Your task to perform on an android device: find which apps use the phone's location Image 0: 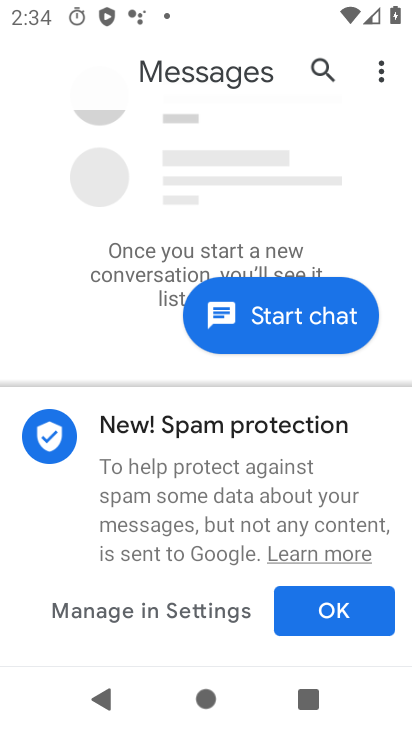
Step 0: press home button
Your task to perform on an android device: find which apps use the phone's location Image 1: 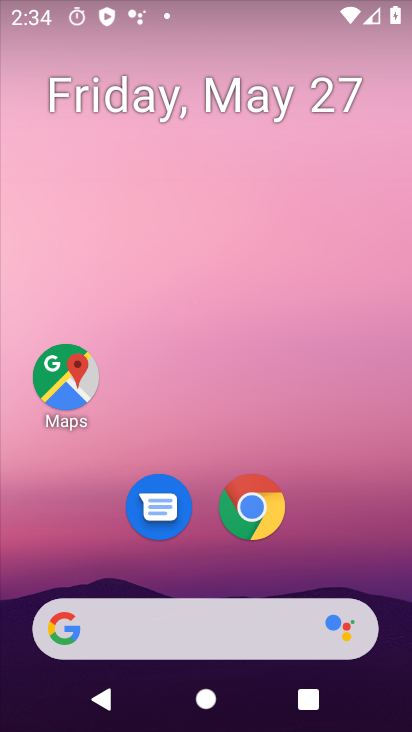
Step 1: drag from (192, 576) to (191, 276)
Your task to perform on an android device: find which apps use the phone's location Image 2: 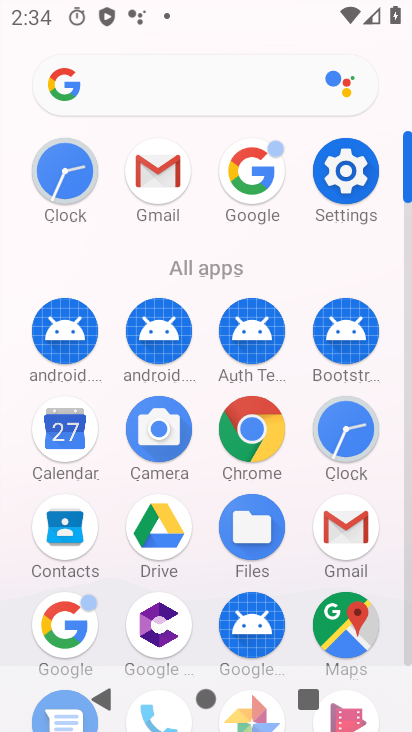
Step 2: click (359, 166)
Your task to perform on an android device: find which apps use the phone's location Image 3: 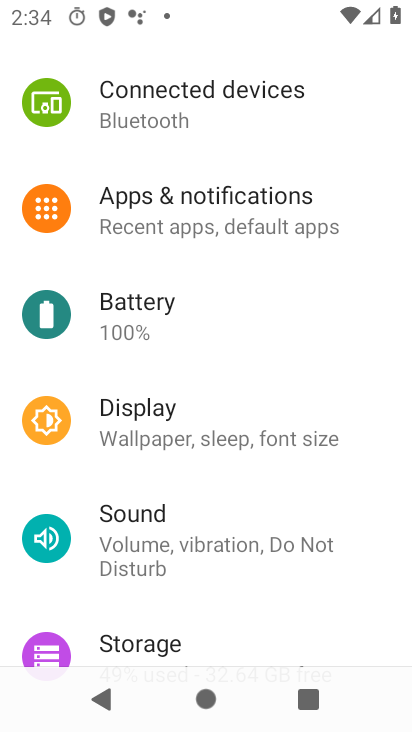
Step 3: drag from (220, 600) to (220, 179)
Your task to perform on an android device: find which apps use the phone's location Image 4: 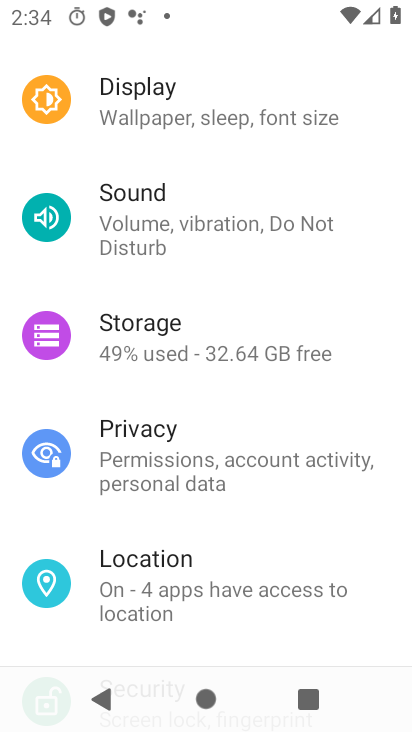
Step 4: click (170, 560)
Your task to perform on an android device: find which apps use the phone's location Image 5: 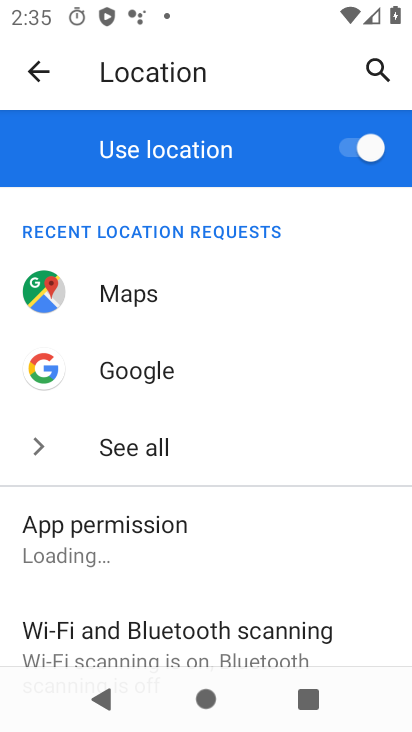
Step 5: drag from (106, 638) to (105, 276)
Your task to perform on an android device: find which apps use the phone's location Image 6: 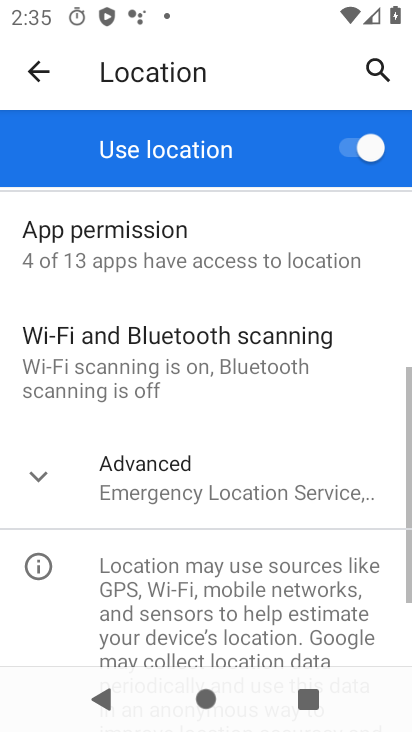
Step 6: click (107, 485)
Your task to perform on an android device: find which apps use the phone's location Image 7: 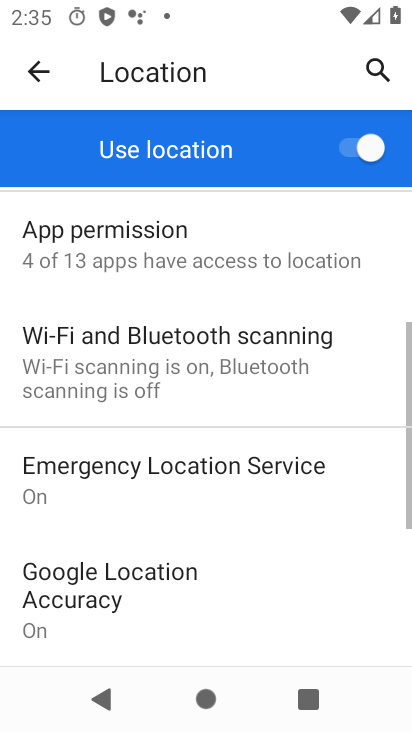
Step 7: drag from (176, 632) to (184, 269)
Your task to perform on an android device: find which apps use the phone's location Image 8: 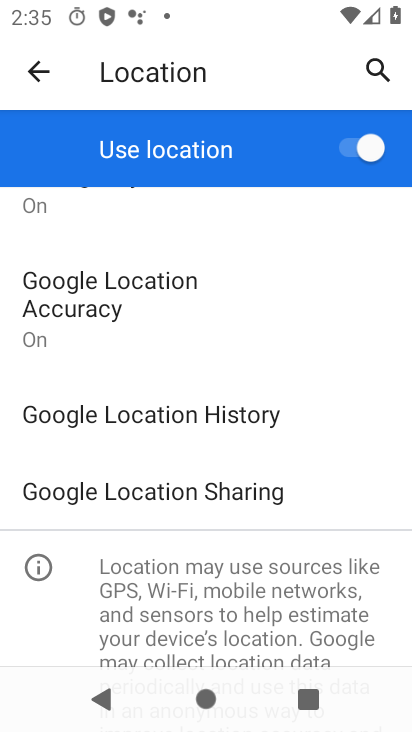
Step 8: drag from (212, 264) to (220, 624)
Your task to perform on an android device: find which apps use the phone's location Image 9: 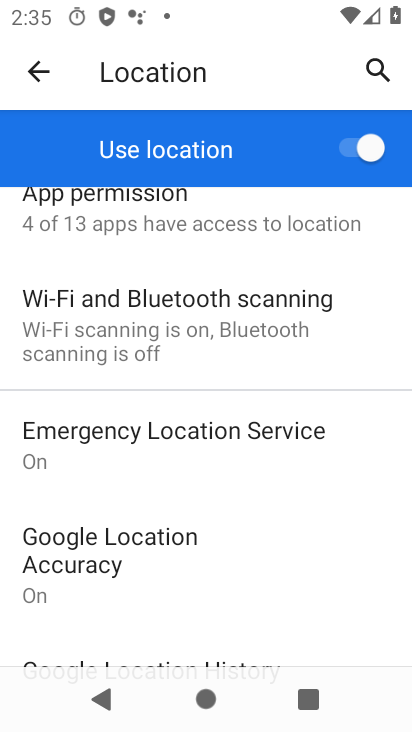
Step 9: click (152, 211)
Your task to perform on an android device: find which apps use the phone's location Image 10: 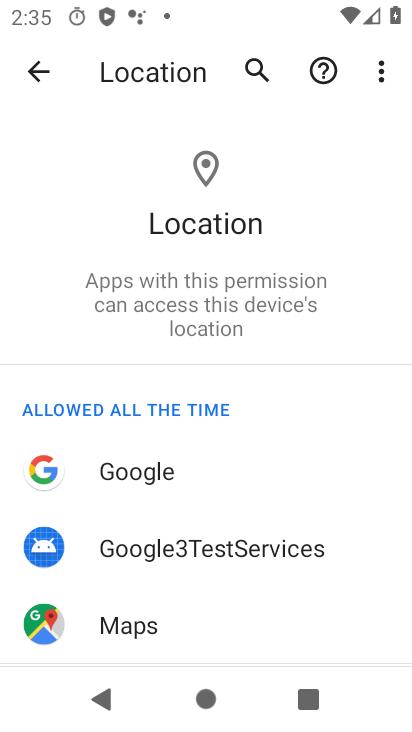
Step 10: drag from (208, 628) to (98, 208)
Your task to perform on an android device: find which apps use the phone's location Image 11: 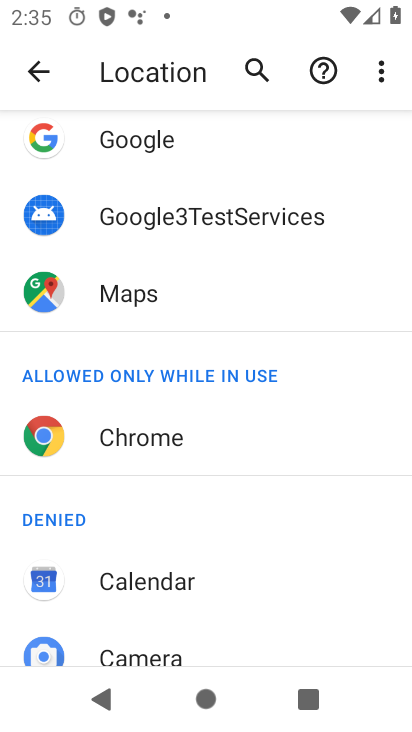
Step 11: drag from (81, 641) to (102, 216)
Your task to perform on an android device: find which apps use the phone's location Image 12: 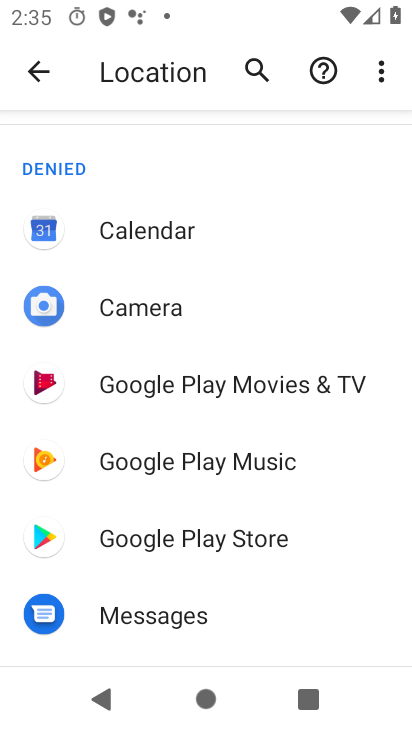
Step 12: drag from (153, 628) to (181, 155)
Your task to perform on an android device: find which apps use the phone's location Image 13: 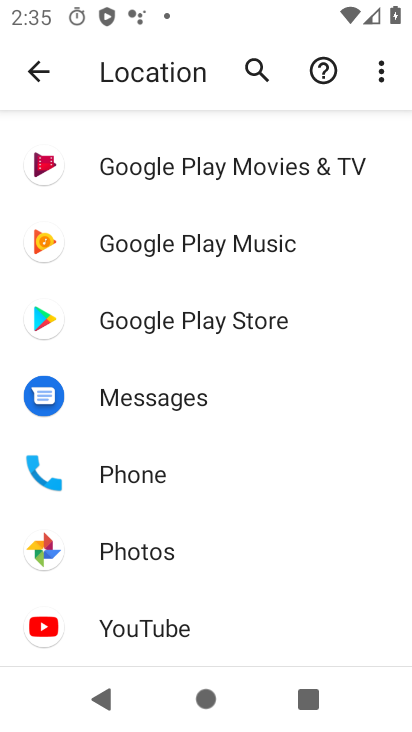
Step 13: click (29, 76)
Your task to perform on an android device: find which apps use the phone's location Image 14: 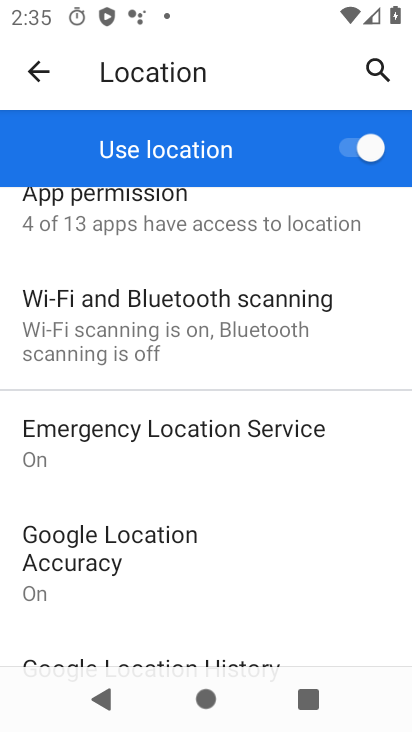
Step 14: task complete